Your task to perform on an android device: see sites visited before in the chrome app Image 0: 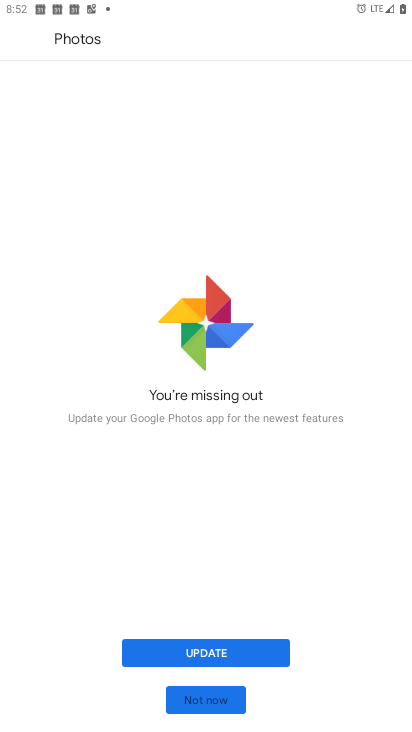
Step 0: press home button
Your task to perform on an android device: see sites visited before in the chrome app Image 1: 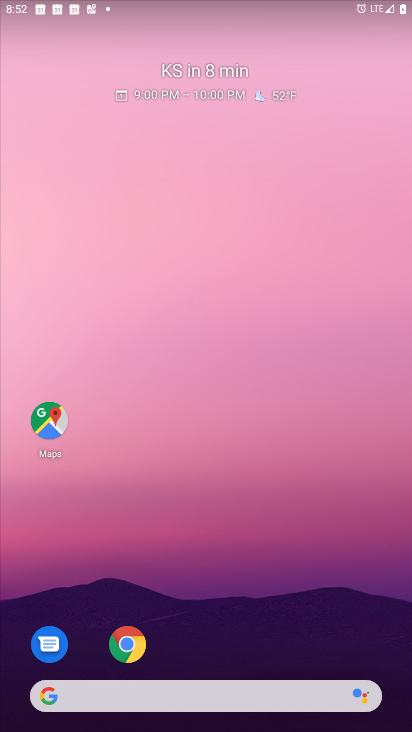
Step 1: click (127, 646)
Your task to perform on an android device: see sites visited before in the chrome app Image 2: 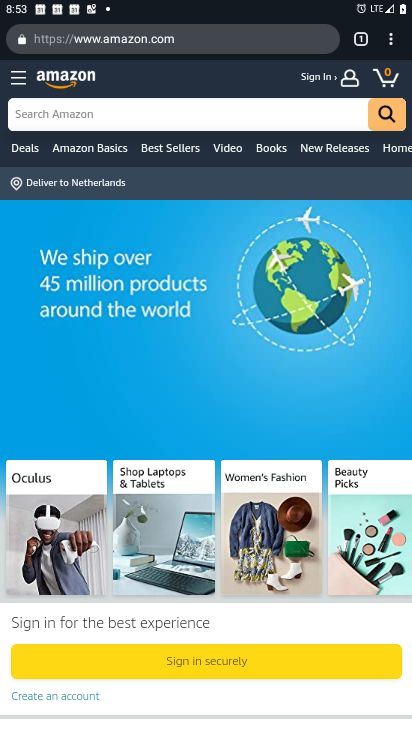
Step 2: click (391, 45)
Your task to perform on an android device: see sites visited before in the chrome app Image 3: 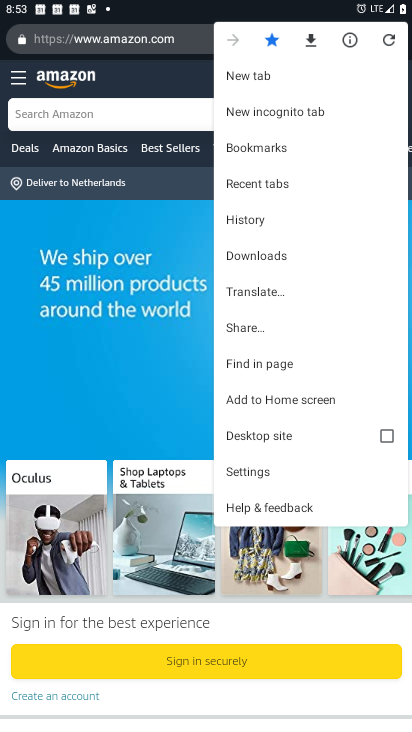
Step 3: click (240, 216)
Your task to perform on an android device: see sites visited before in the chrome app Image 4: 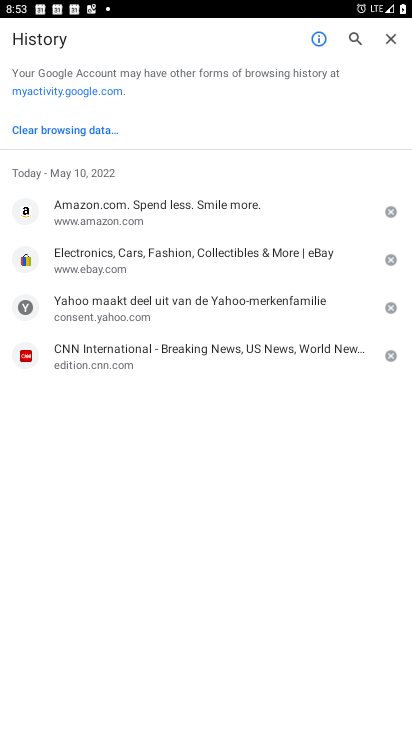
Step 4: task complete